Your task to perform on an android device: Open my contact list Image 0: 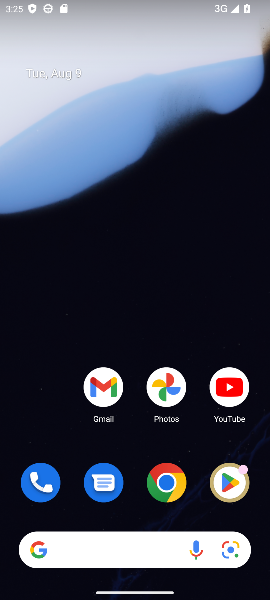
Step 0: drag from (133, 446) to (150, 87)
Your task to perform on an android device: Open my contact list Image 1: 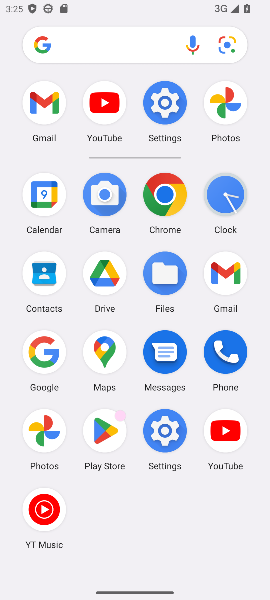
Step 1: click (47, 272)
Your task to perform on an android device: Open my contact list Image 2: 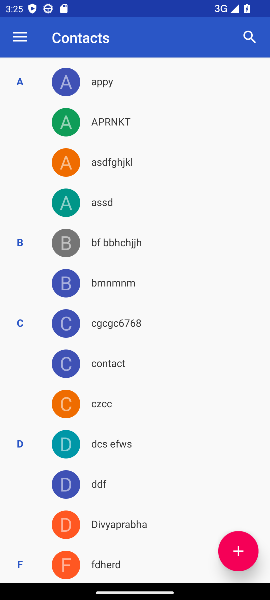
Step 2: task complete